Your task to perform on an android device: Open Amazon Image 0: 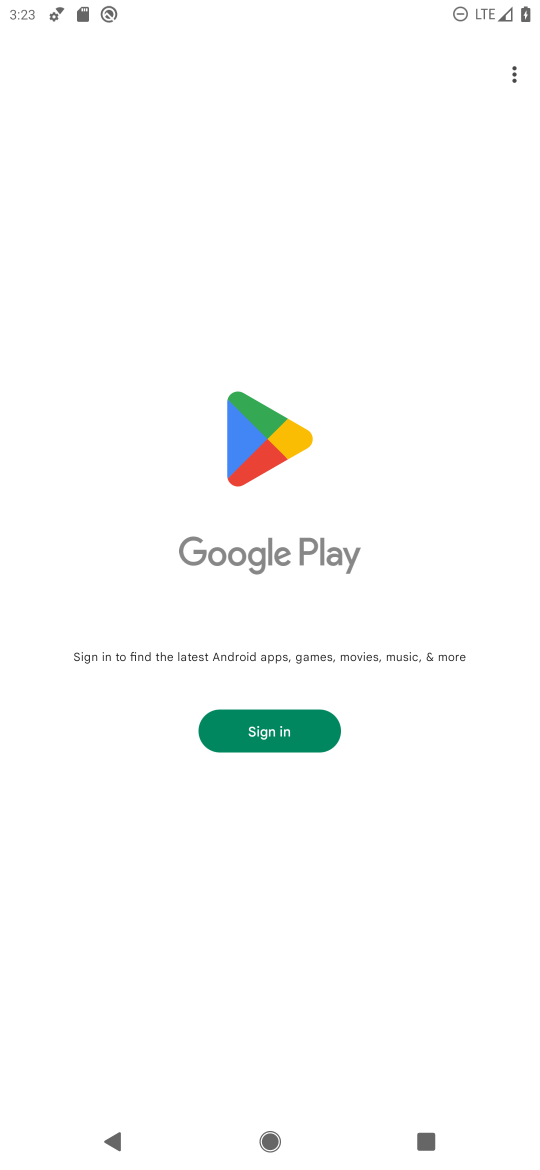
Step 0: press home button
Your task to perform on an android device: Open Amazon Image 1: 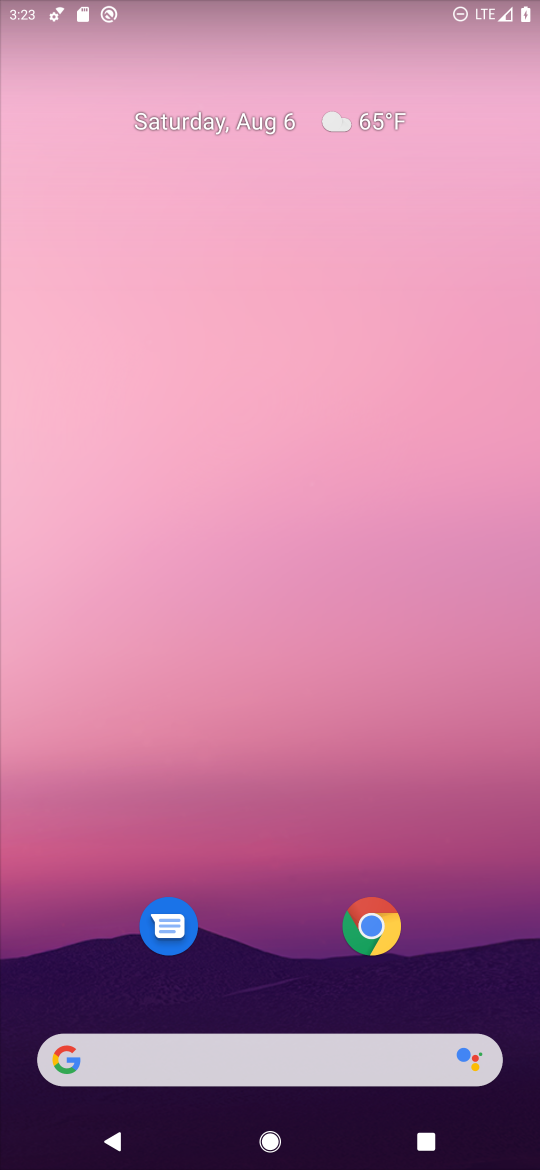
Step 1: click (361, 932)
Your task to perform on an android device: Open Amazon Image 2: 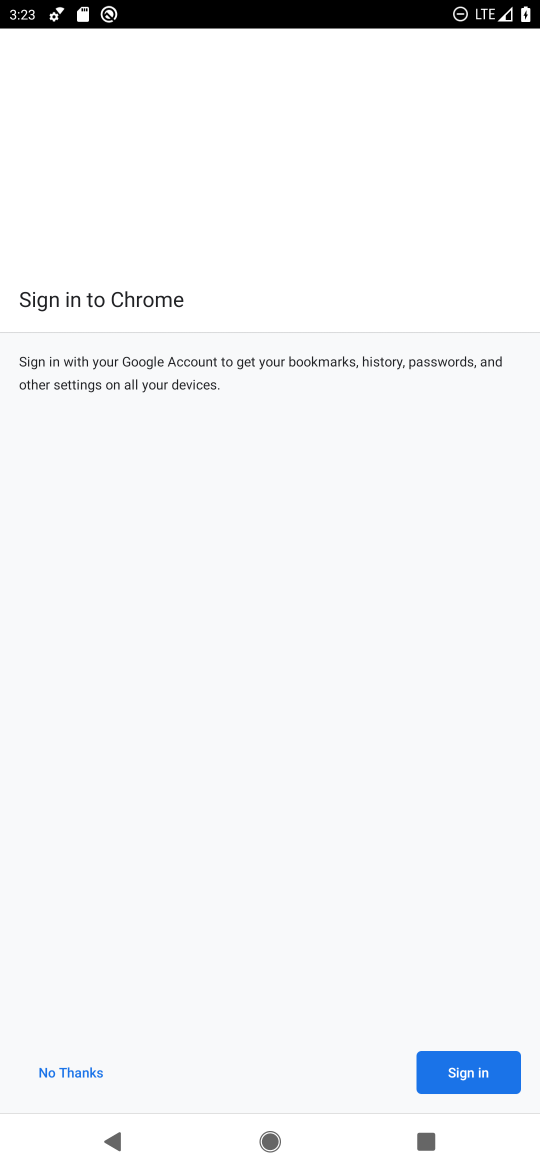
Step 2: click (444, 1063)
Your task to perform on an android device: Open Amazon Image 3: 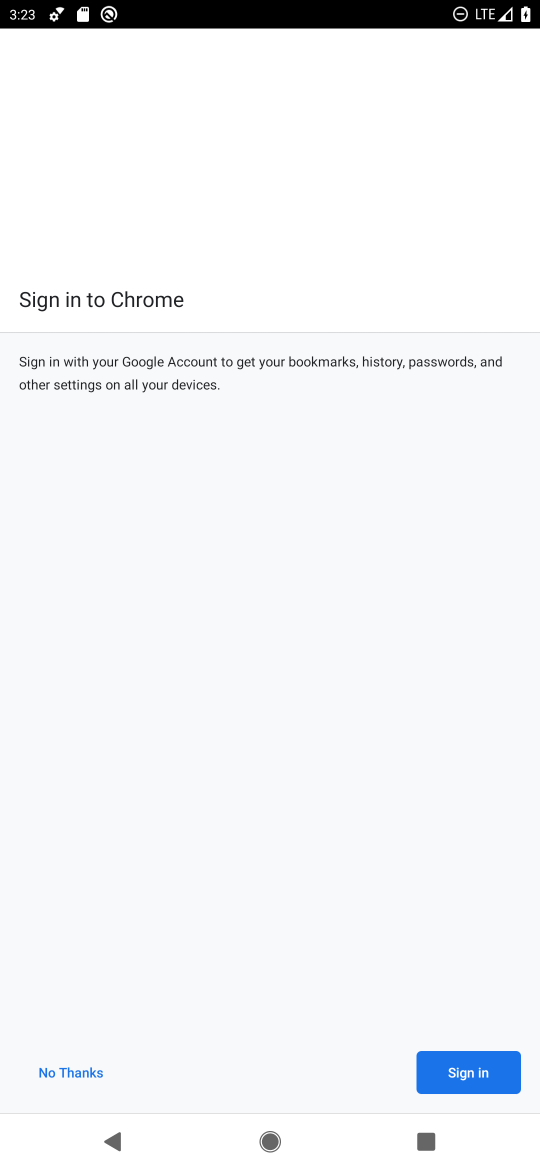
Step 3: click (79, 1057)
Your task to perform on an android device: Open Amazon Image 4: 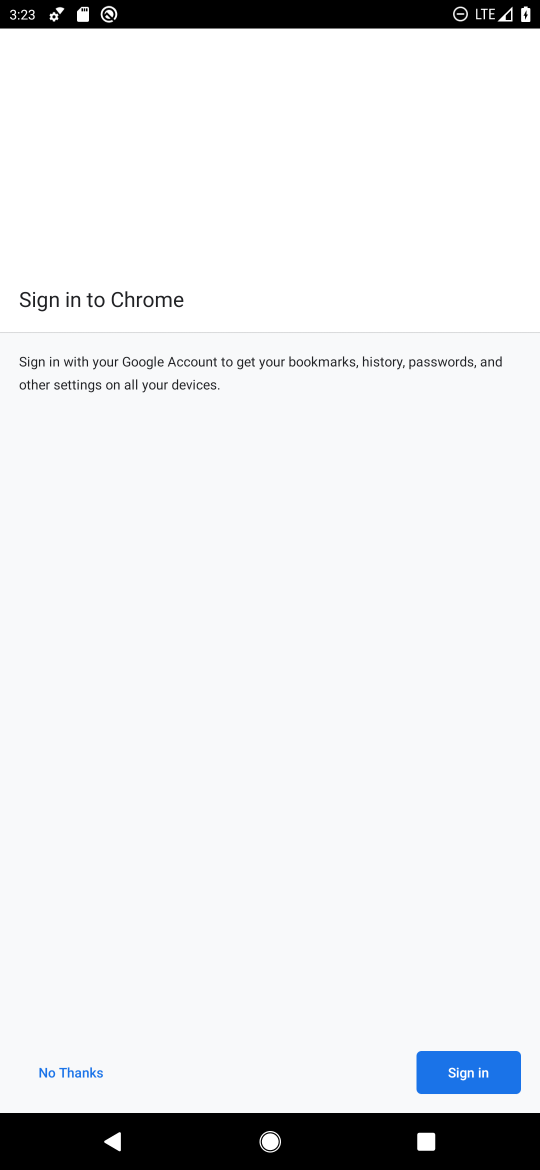
Step 4: click (66, 1072)
Your task to perform on an android device: Open Amazon Image 5: 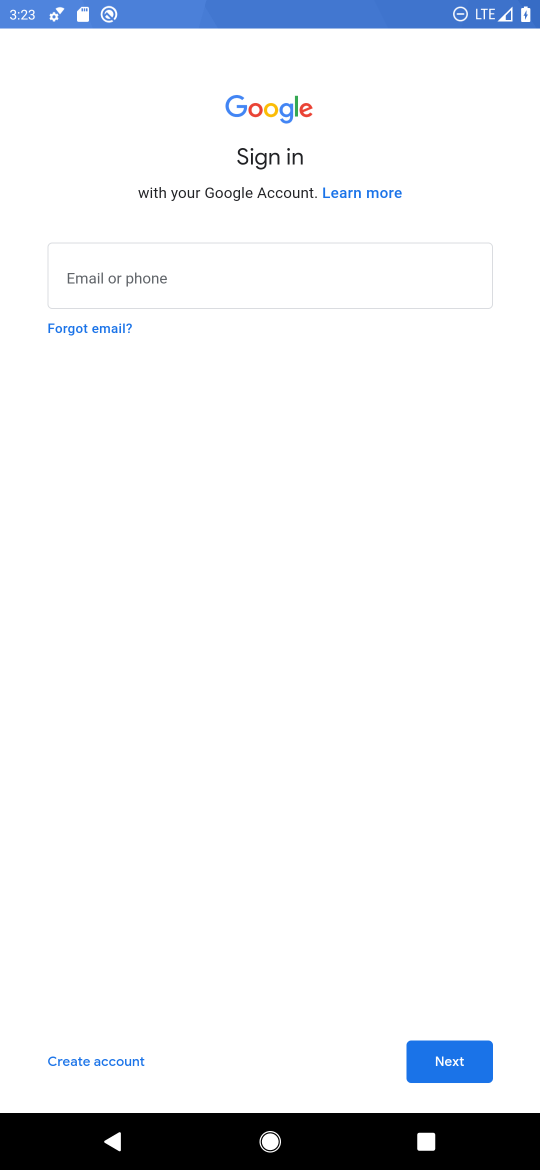
Step 5: press back button
Your task to perform on an android device: Open Amazon Image 6: 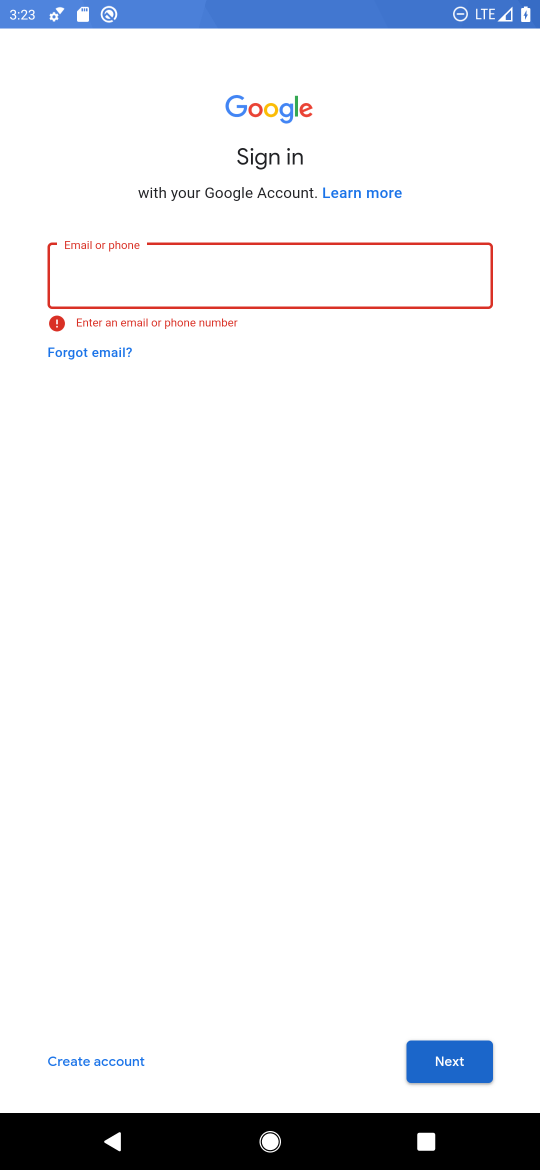
Step 6: press back button
Your task to perform on an android device: Open Amazon Image 7: 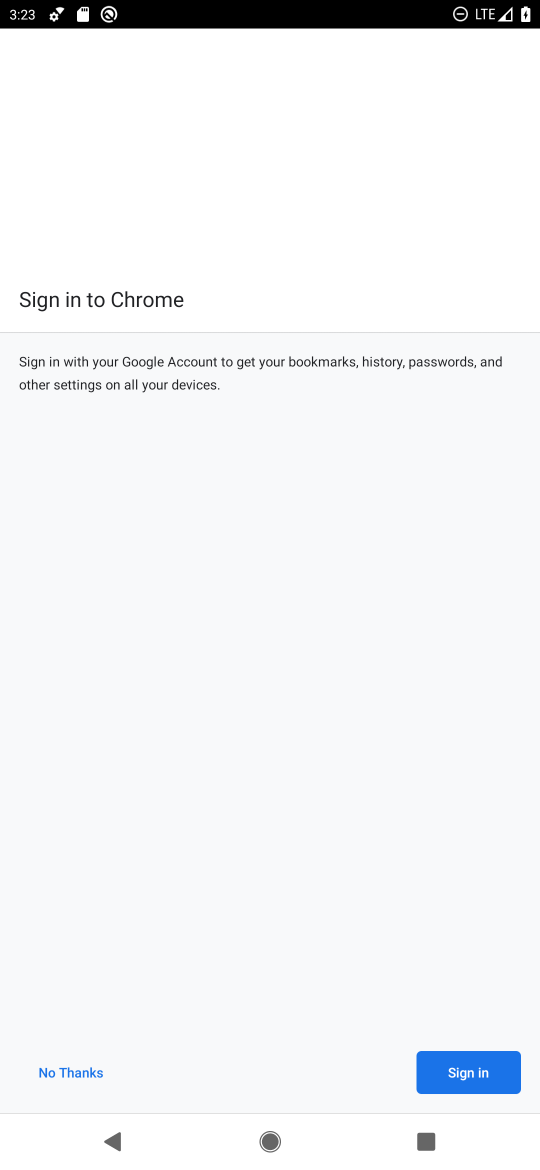
Step 7: click (49, 1058)
Your task to perform on an android device: Open Amazon Image 8: 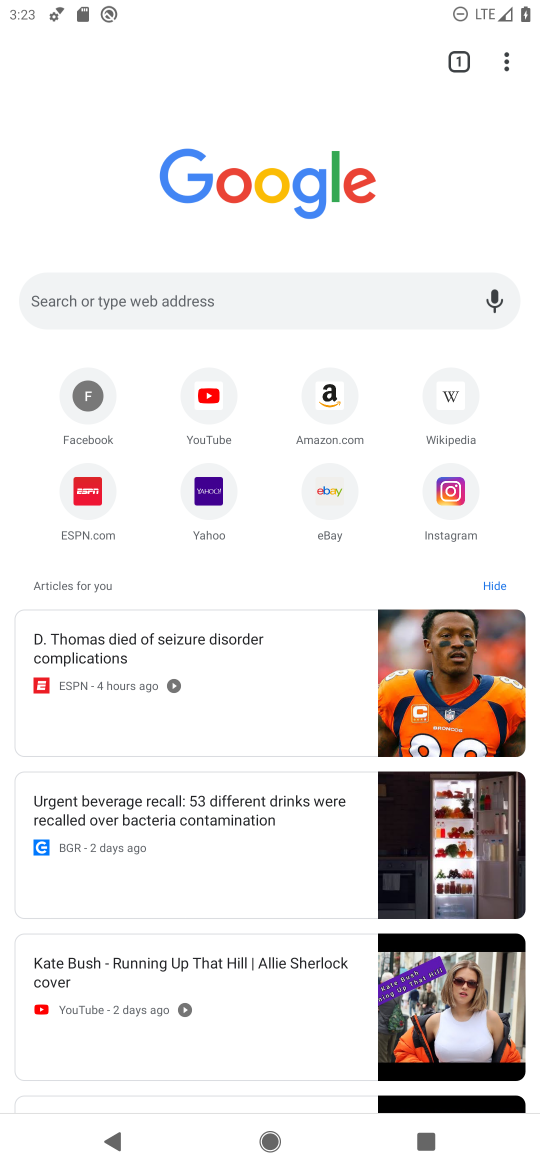
Step 8: click (333, 401)
Your task to perform on an android device: Open Amazon Image 9: 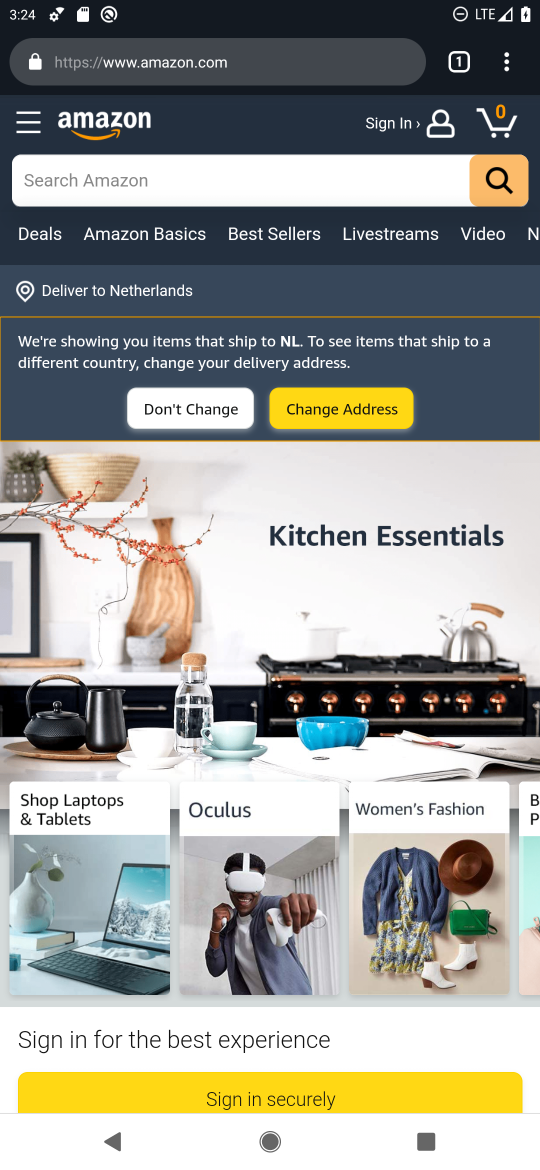
Step 9: task complete